Your task to perform on an android device: change your default location settings in chrome Image 0: 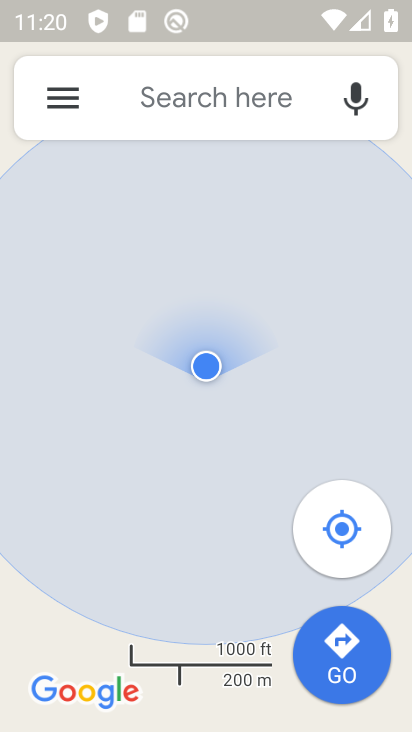
Step 0: press home button
Your task to perform on an android device: change your default location settings in chrome Image 1: 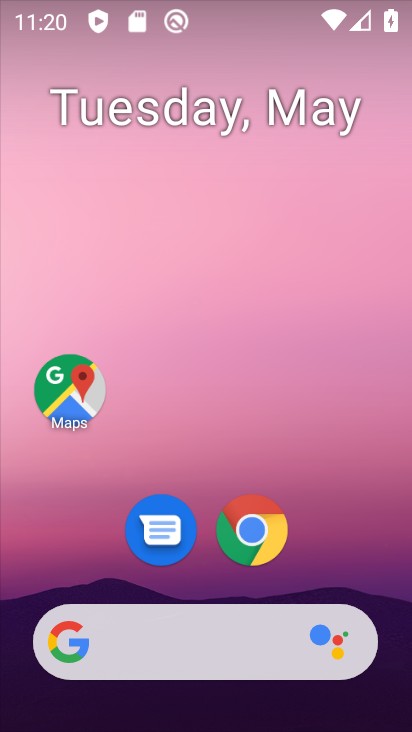
Step 1: click (264, 529)
Your task to perform on an android device: change your default location settings in chrome Image 2: 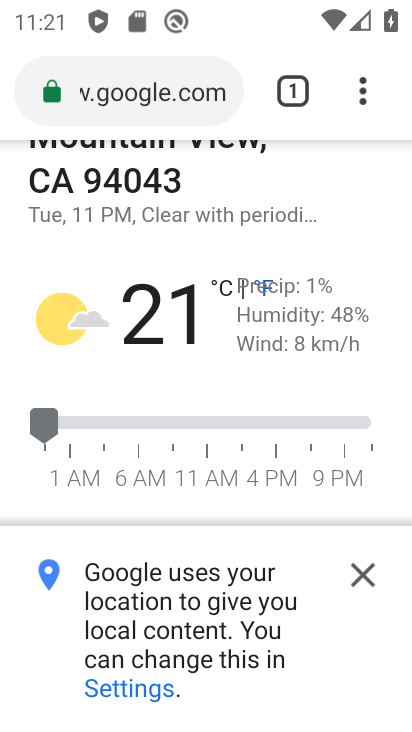
Step 2: click (363, 87)
Your task to perform on an android device: change your default location settings in chrome Image 3: 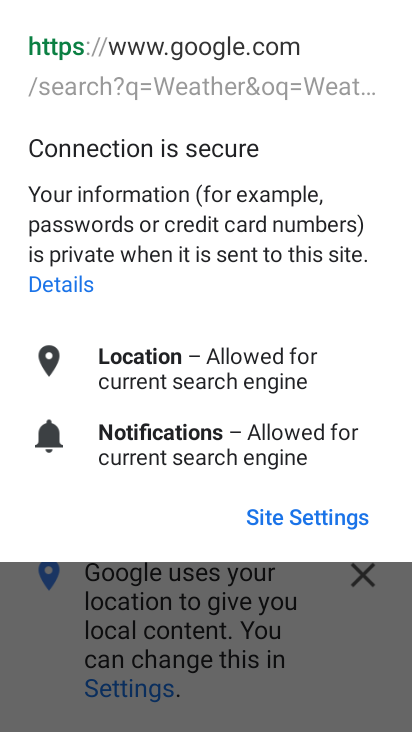
Step 3: click (321, 593)
Your task to perform on an android device: change your default location settings in chrome Image 4: 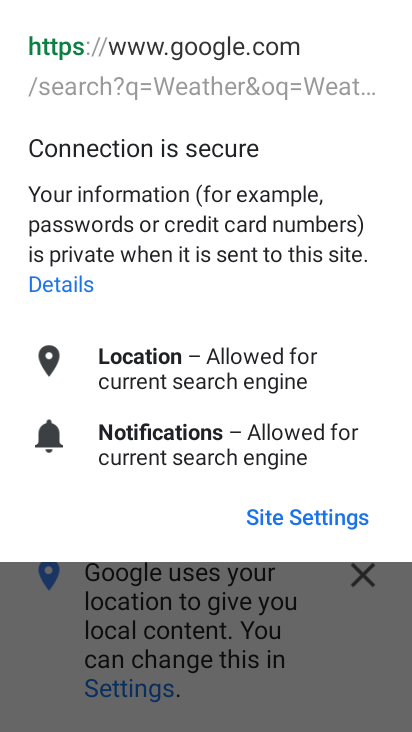
Step 4: click (360, 674)
Your task to perform on an android device: change your default location settings in chrome Image 5: 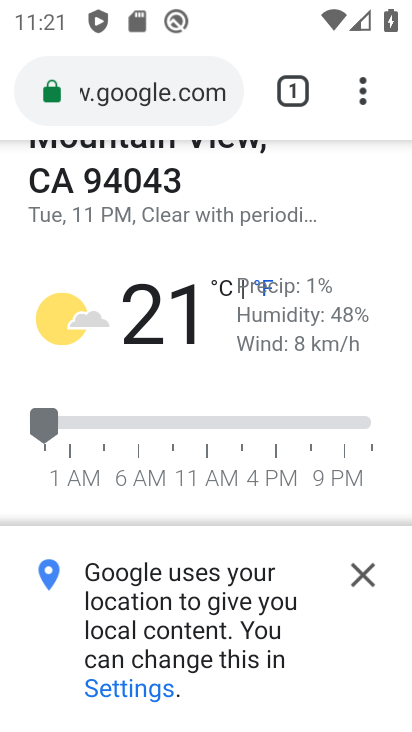
Step 5: click (365, 82)
Your task to perform on an android device: change your default location settings in chrome Image 6: 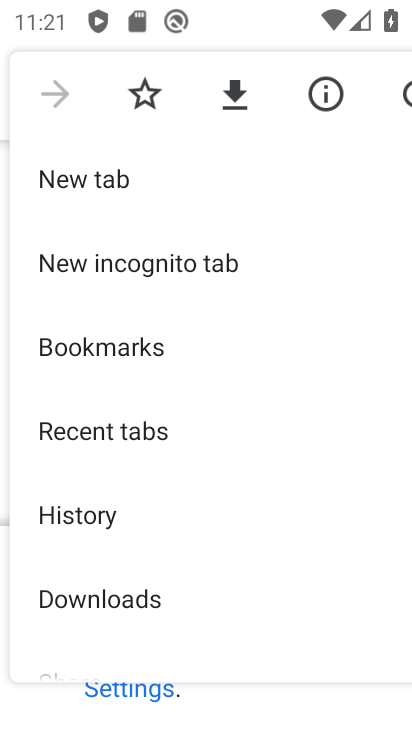
Step 6: drag from (149, 521) to (158, 149)
Your task to perform on an android device: change your default location settings in chrome Image 7: 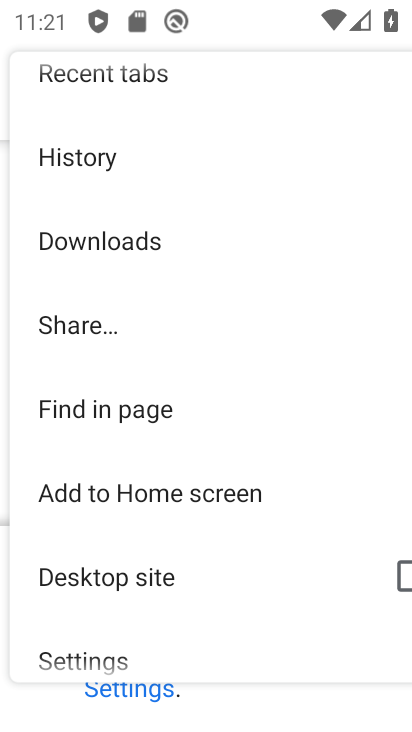
Step 7: click (89, 652)
Your task to perform on an android device: change your default location settings in chrome Image 8: 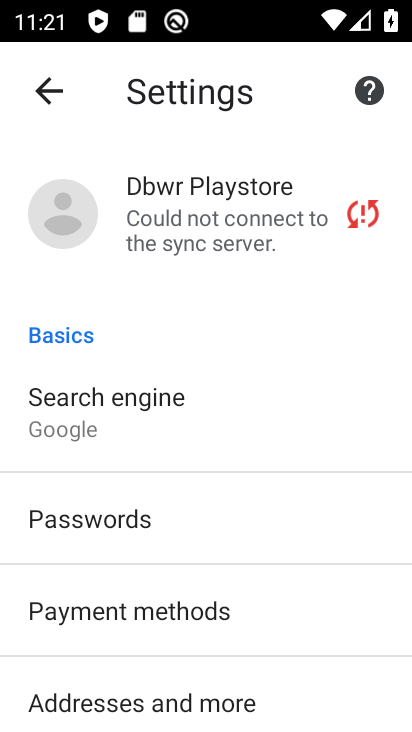
Step 8: drag from (85, 557) to (110, 110)
Your task to perform on an android device: change your default location settings in chrome Image 9: 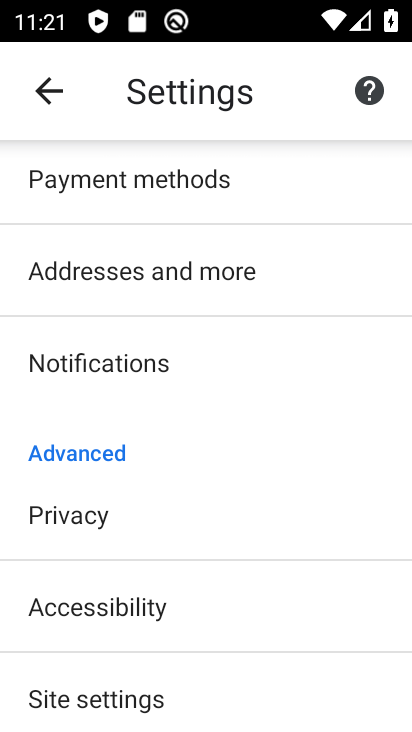
Step 9: drag from (180, 624) to (225, 133)
Your task to perform on an android device: change your default location settings in chrome Image 10: 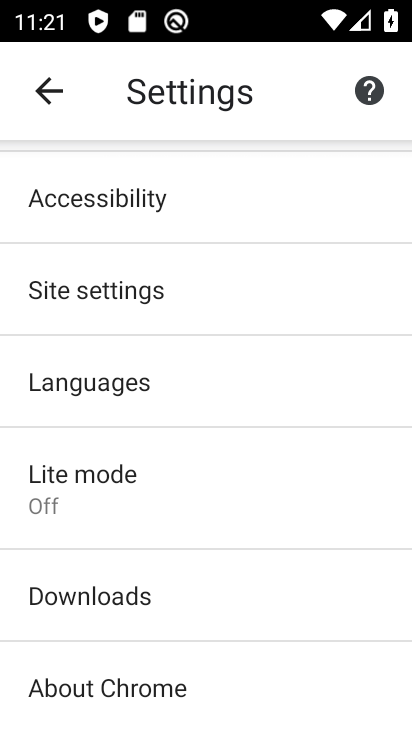
Step 10: drag from (117, 531) to (130, 152)
Your task to perform on an android device: change your default location settings in chrome Image 11: 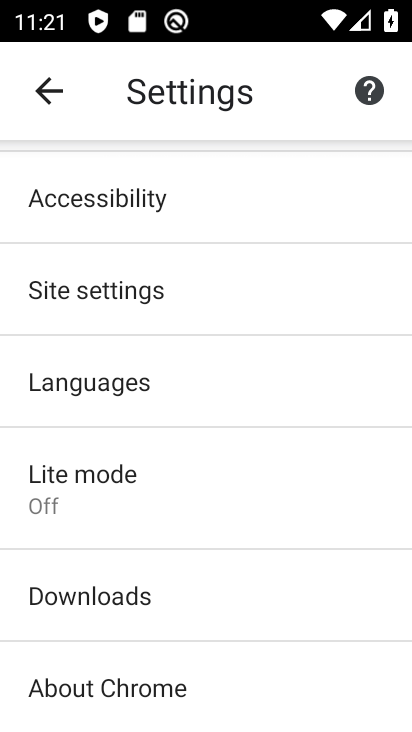
Step 11: drag from (135, 281) to (138, 714)
Your task to perform on an android device: change your default location settings in chrome Image 12: 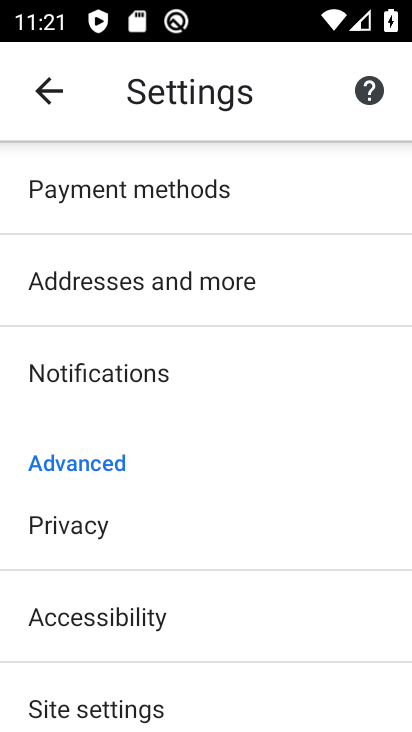
Step 12: drag from (160, 333) to (181, 232)
Your task to perform on an android device: change your default location settings in chrome Image 13: 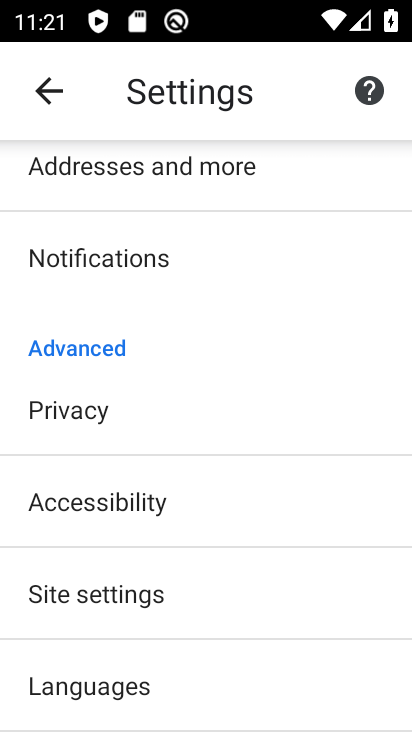
Step 13: click (70, 603)
Your task to perform on an android device: change your default location settings in chrome Image 14: 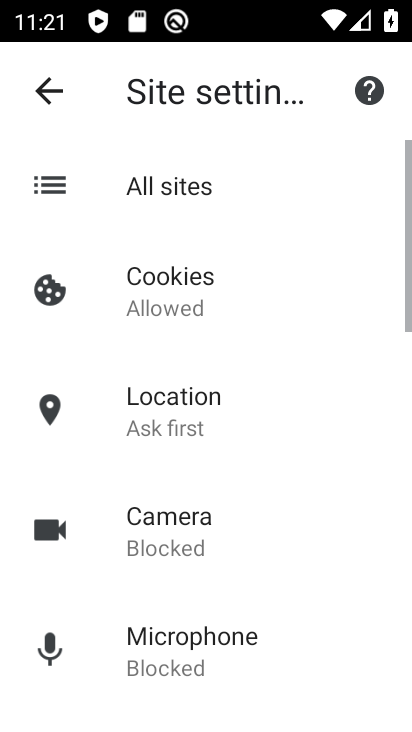
Step 14: click (164, 406)
Your task to perform on an android device: change your default location settings in chrome Image 15: 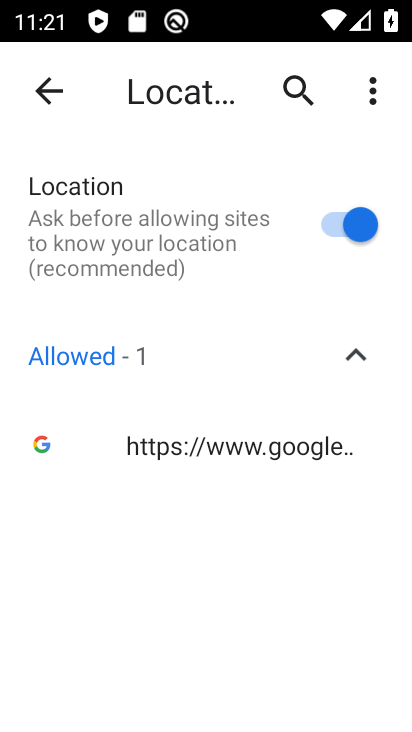
Step 15: task complete